Your task to perform on an android device: see tabs open on other devices in the chrome app Image 0: 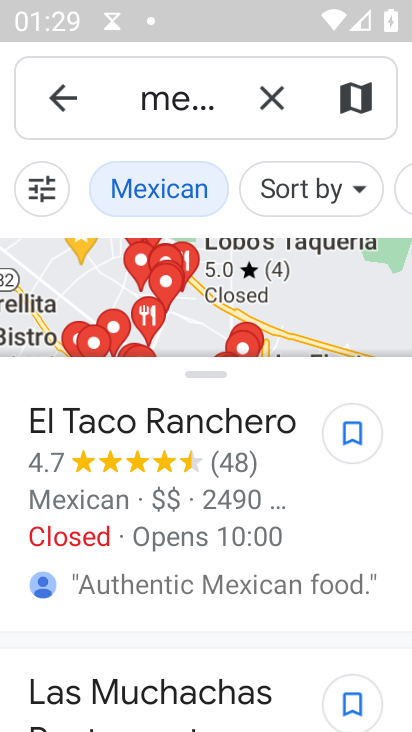
Step 0: press home button
Your task to perform on an android device: see tabs open on other devices in the chrome app Image 1: 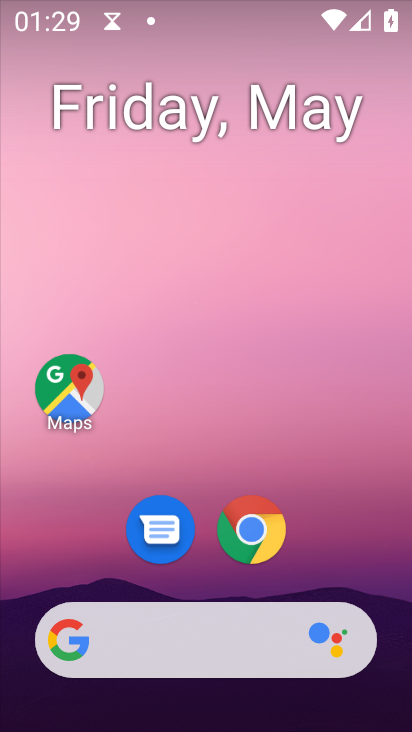
Step 1: drag from (322, 570) to (290, 241)
Your task to perform on an android device: see tabs open on other devices in the chrome app Image 2: 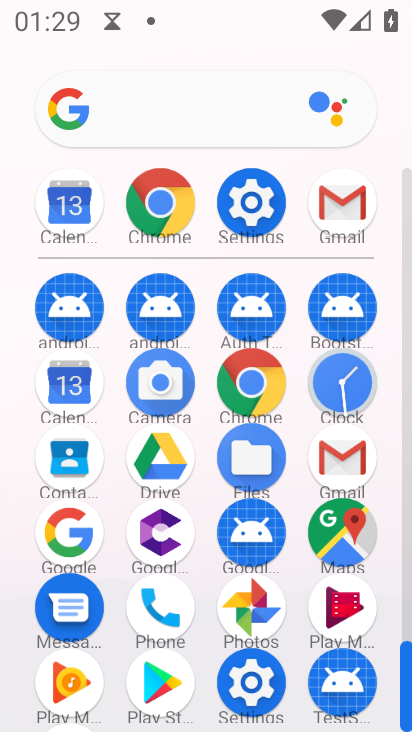
Step 2: click (151, 202)
Your task to perform on an android device: see tabs open on other devices in the chrome app Image 3: 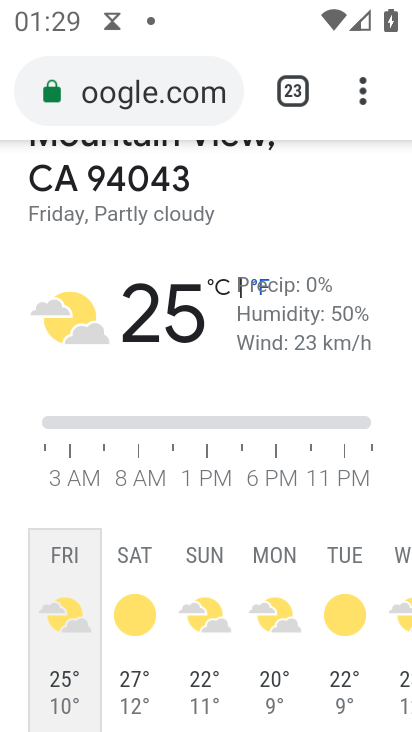
Step 3: click (374, 82)
Your task to perform on an android device: see tabs open on other devices in the chrome app Image 4: 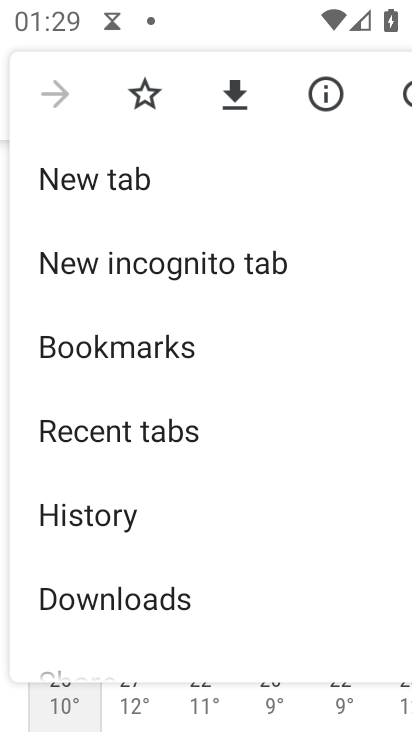
Step 4: click (104, 519)
Your task to perform on an android device: see tabs open on other devices in the chrome app Image 5: 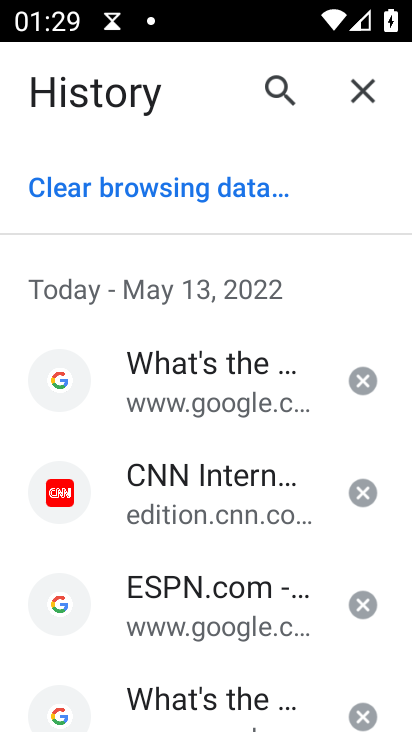
Step 5: task complete